Your task to perform on an android device: Search for hotels in Tokyo Image 0: 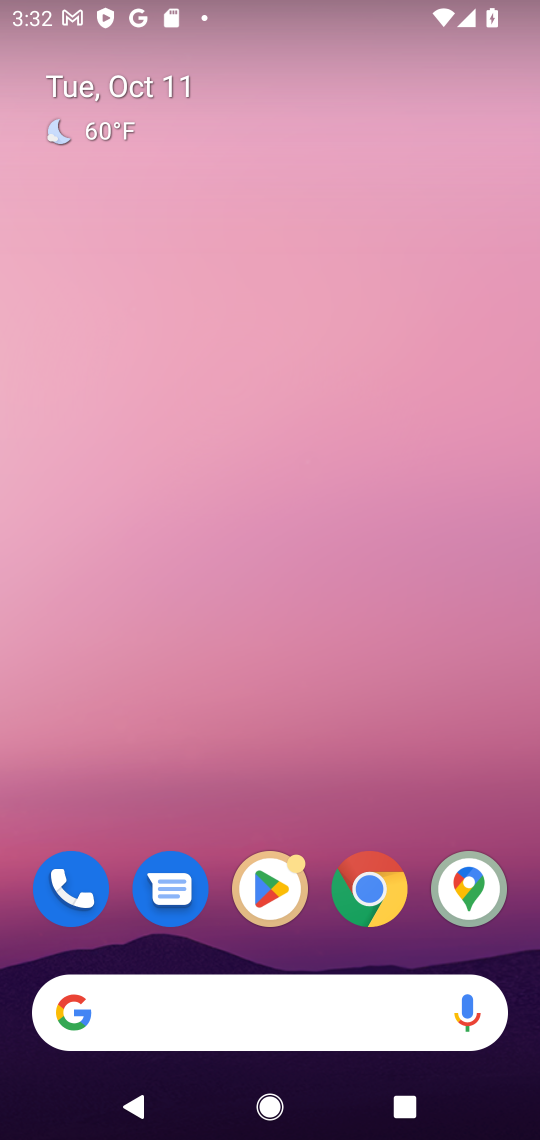
Step 0: drag from (264, 652) to (264, 314)
Your task to perform on an android device: Search for hotels in Tokyo Image 1: 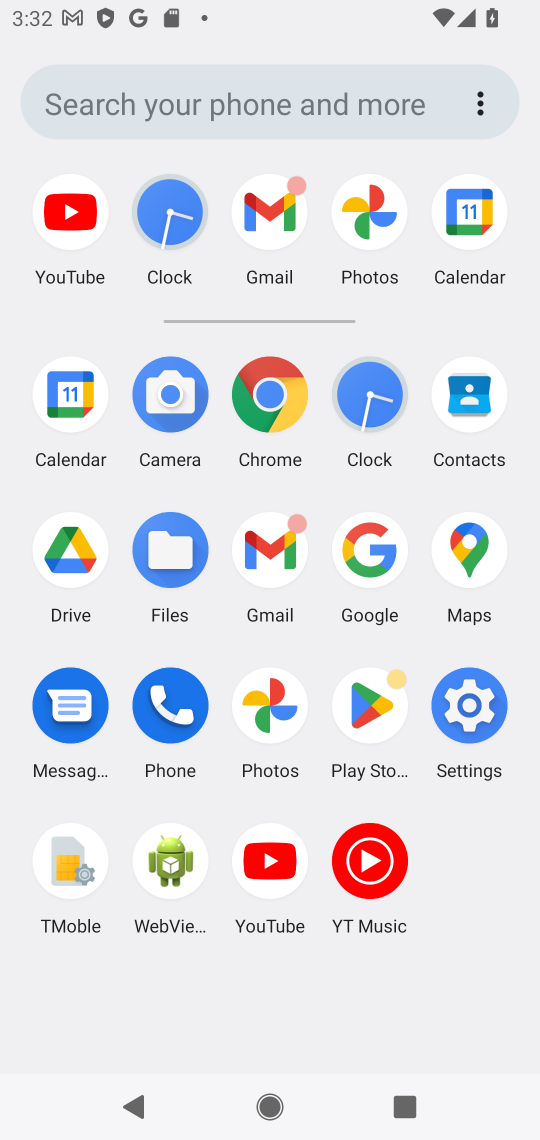
Step 1: click (359, 539)
Your task to perform on an android device: Search for hotels in Tokyo Image 2: 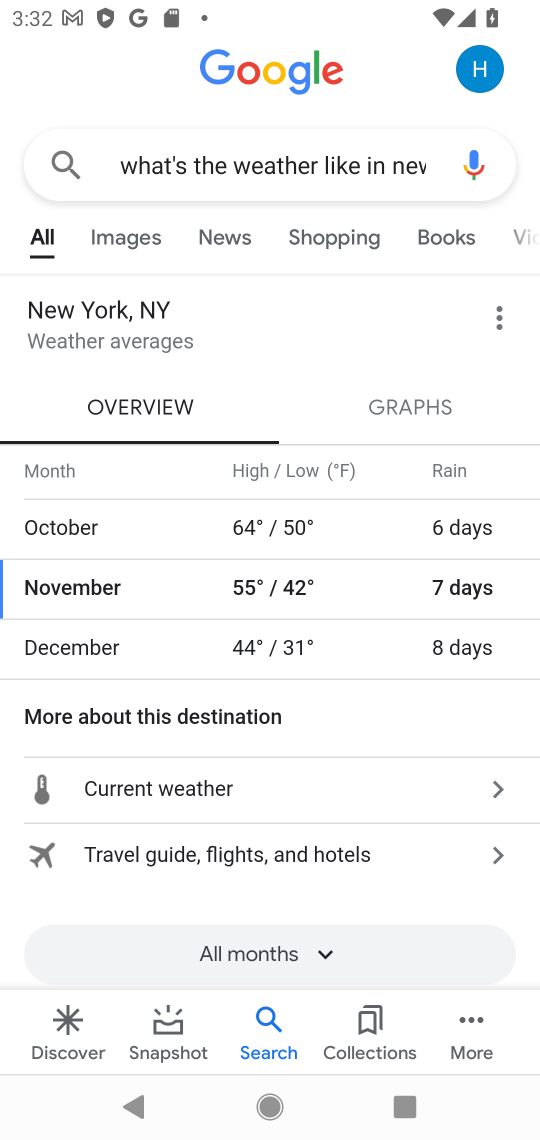
Step 2: click (300, 161)
Your task to perform on an android device: Search for hotels in Tokyo Image 3: 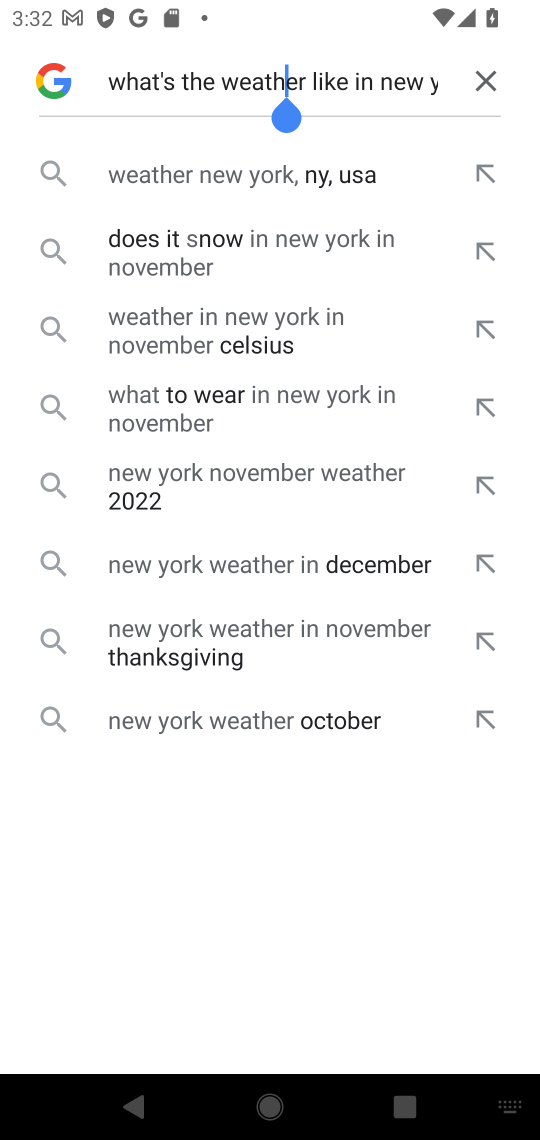
Step 3: click (489, 68)
Your task to perform on an android device: Search for hotels in Tokyo Image 4: 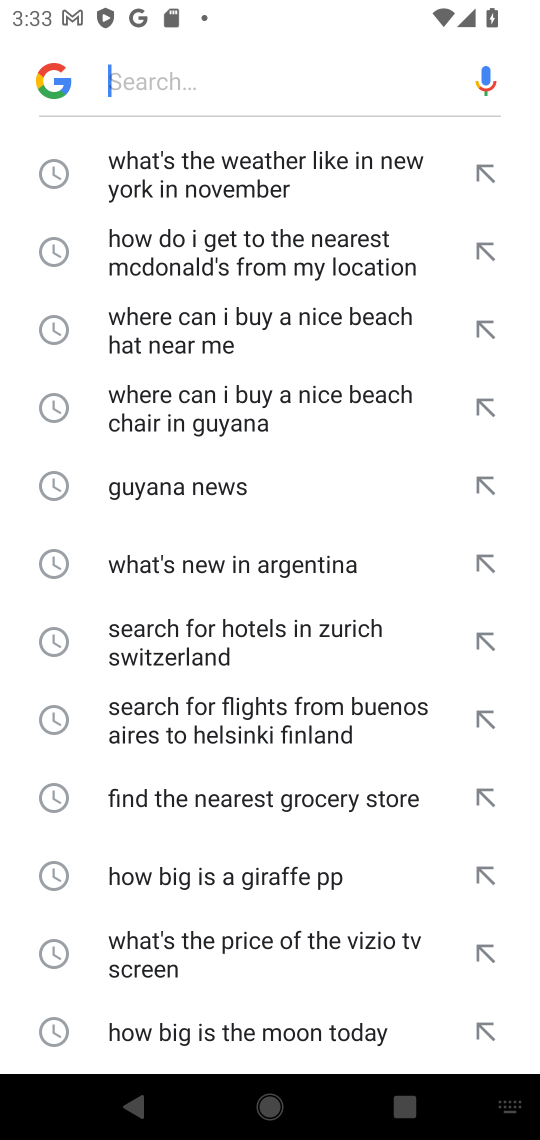
Step 4: click (299, 71)
Your task to perform on an android device: Search for hotels in Tokyo Image 5: 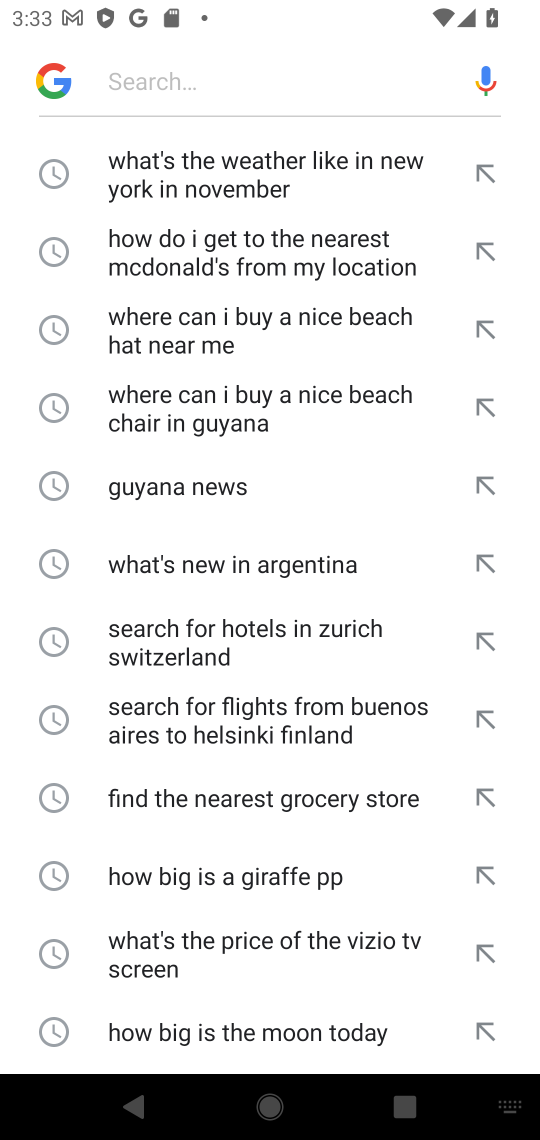
Step 5: type "Search for hotels in Tokyo "
Your task to perform on an android device: Search for hotels in Tokyo Image 6: 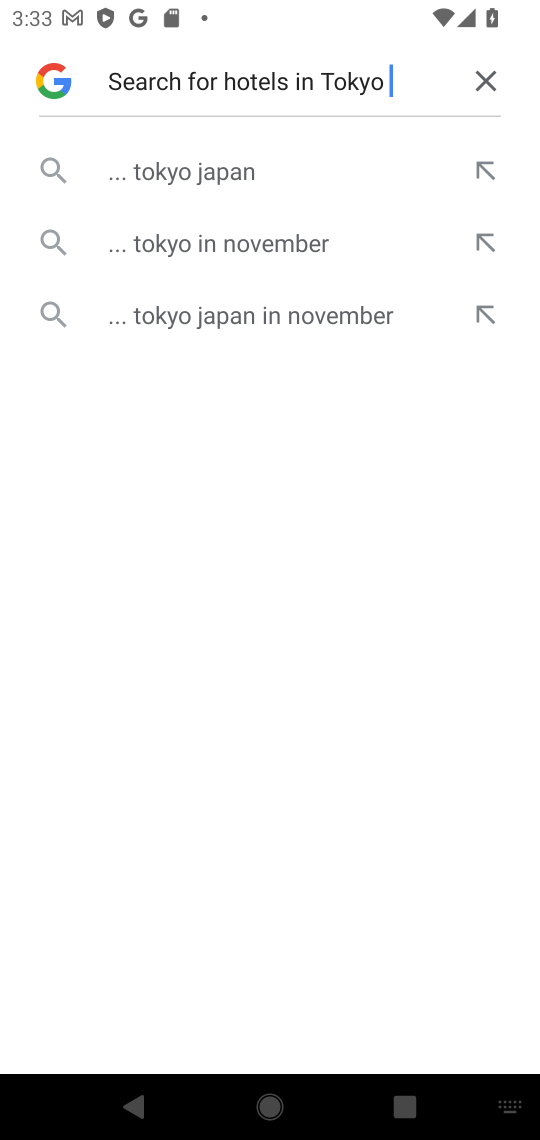
Step 6: click (211, 180)
Your task to perform on an android device: Search for hotels in Tokyo Image 7: 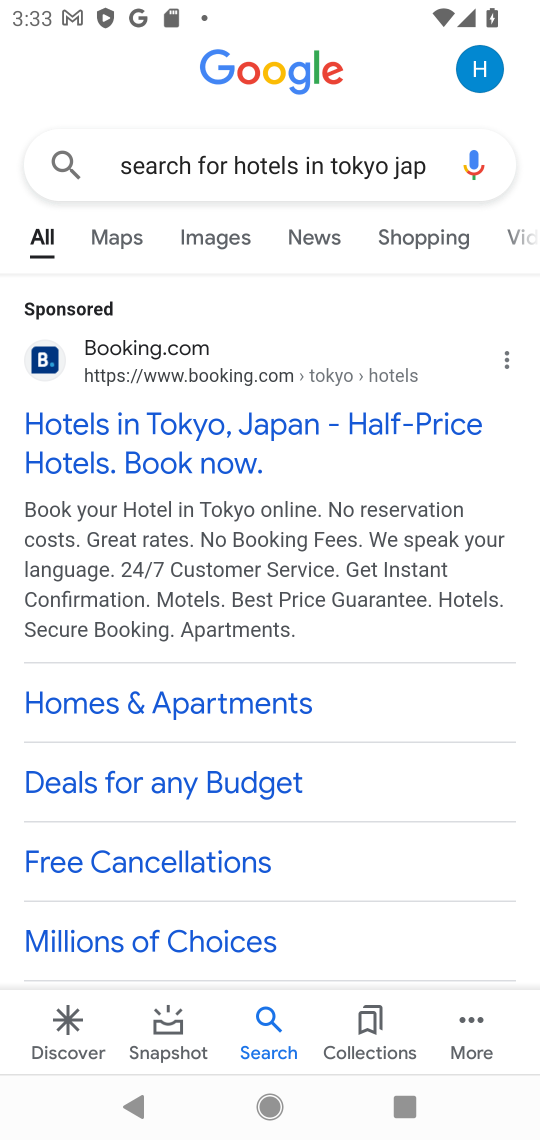
Step 7: click (247, 416)
Your task to perform on an android device: Search for hotels in Tokyo Image 8: 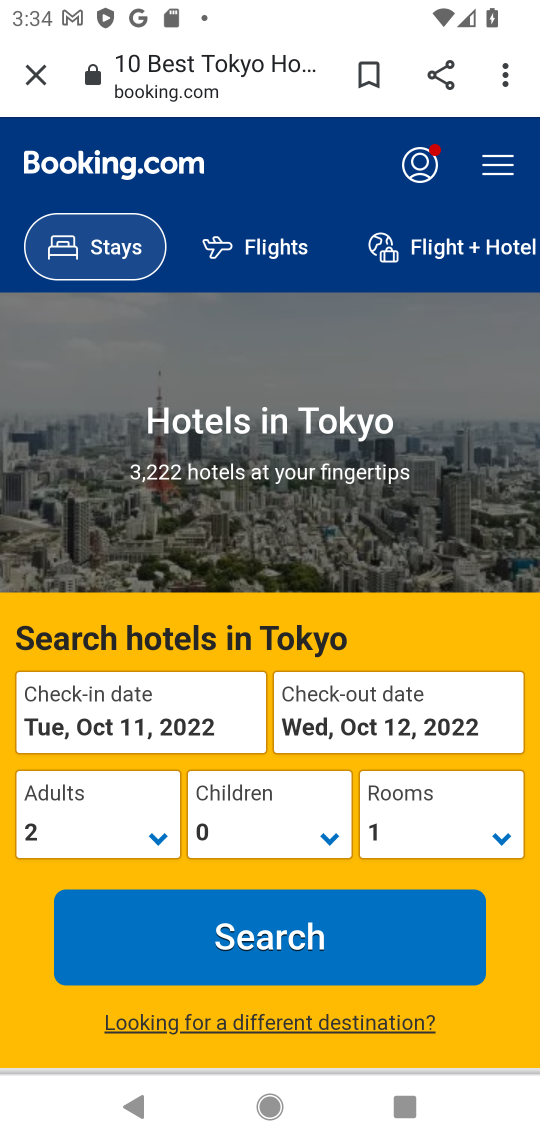
Step 8: click (223, 957)
Your task to perform on an android device: Search for hotels in Tokyo Image 9: 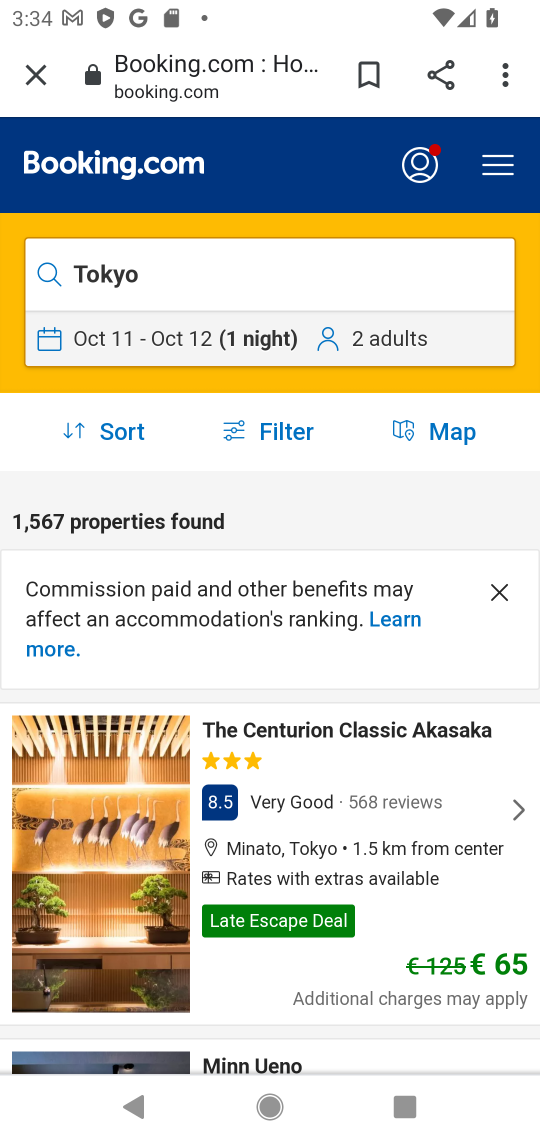
Step 9: task complete